Your task to perform on an android device: clear all cookies in the chrome app Image 0: 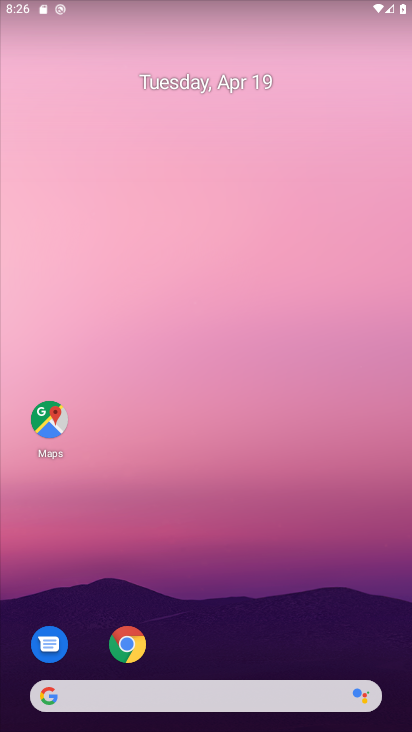
Step 0: click (110, 649)
Your task to perform on an android device: clear all cookies in the chrome app Image 1: 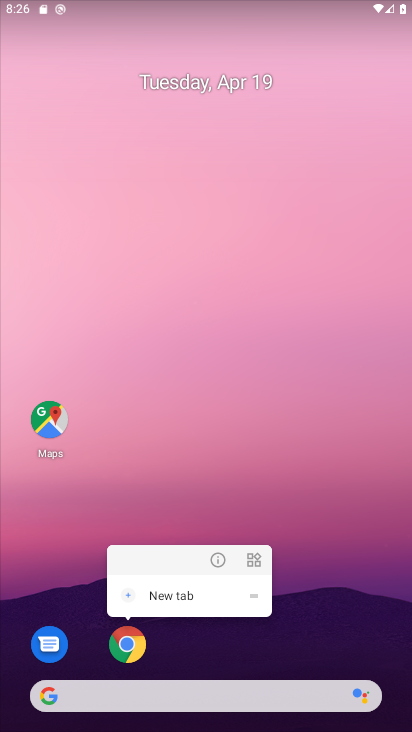
Step 1: drag from (261, 586) to (299, 98)
Your task to perform on an android device: clear all cookies in the chrome app Image 2: 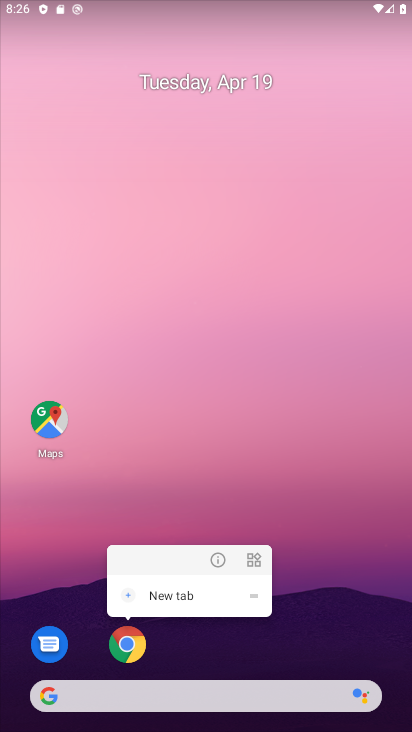
Step 2: drag from (294, 583) to (369, 102)
Your task to perform on an android device: clear all cookies in the chrome app Image 3: 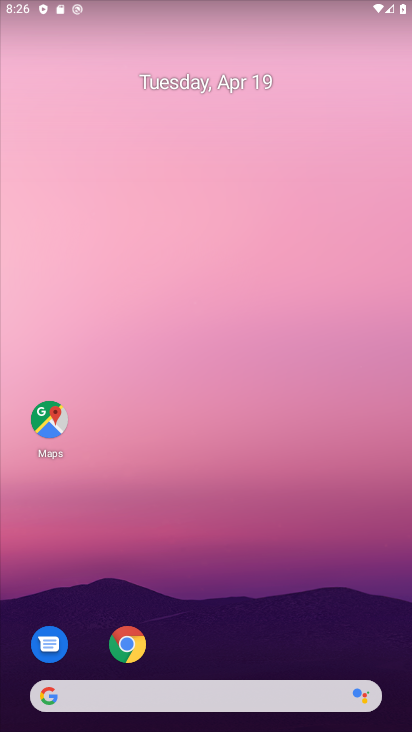
Step 3: drag from (205, 628) to (334, 68)
Your task to perform on an android device: clear all cookies in the chrome app Image 4: 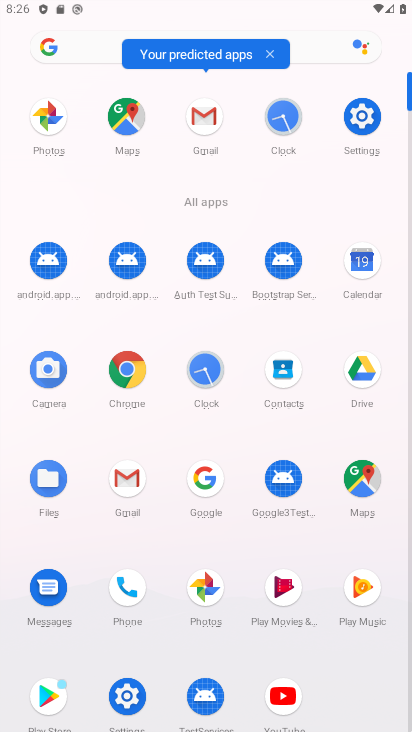
Step 4: click (135, 382)
Your task to perform on an android device: clear all cookies in the chrome app Image 5: 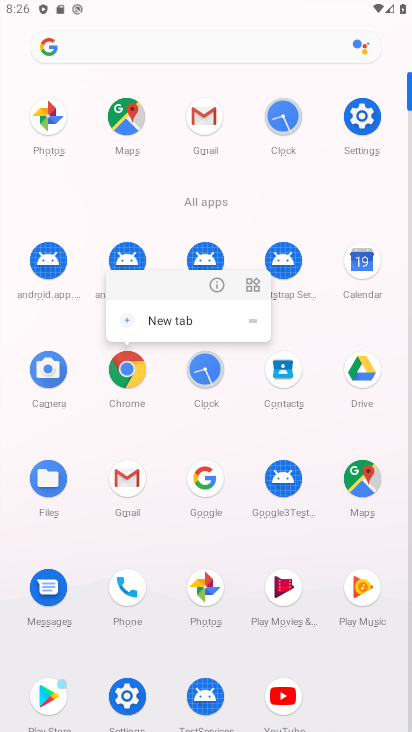
Step 5: click (135, 369)
Your task to perform on an android device: clear all cookies in the chrome app Image 6: 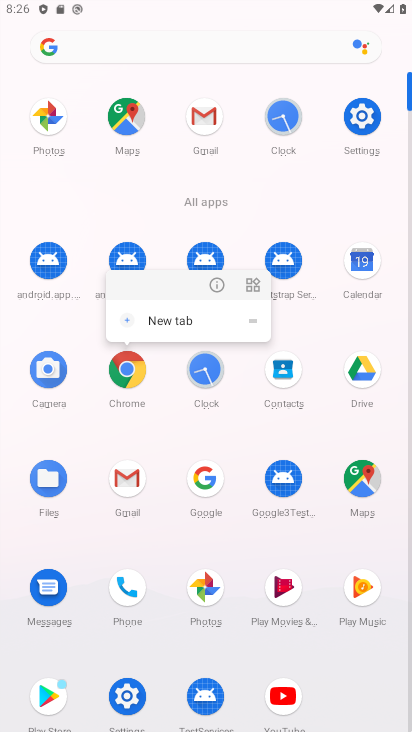
Step 6: click (135, 378)
Your task to perform on an android device: clear all cookies in the chrome app Image 7: 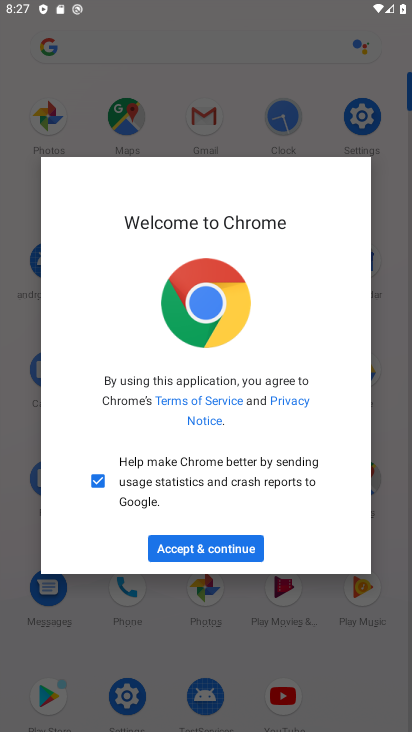
Step 7: click (237, 550)
Your task to perform on an android device: clear all cookies in the chrome app Image 8: 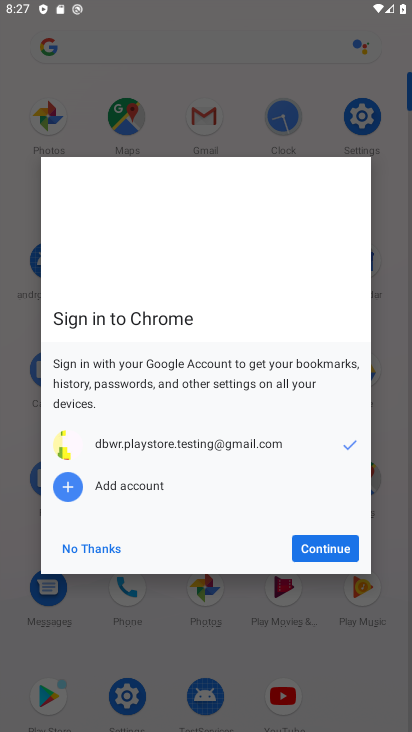
Step 8: click (328, 548)
Your task to perform on an android device: clear all cookies in the chrome app Image 9: 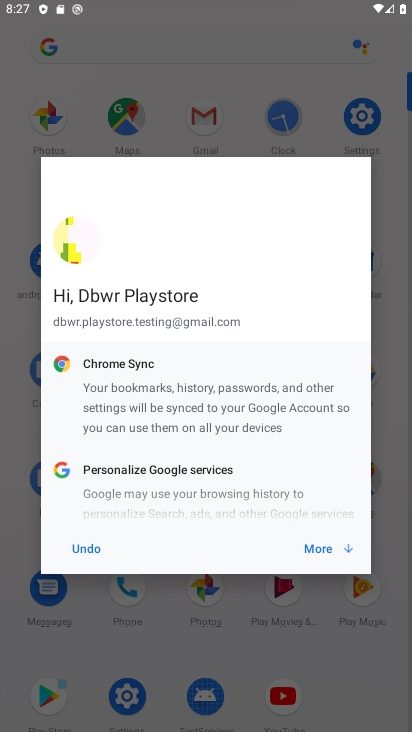
Step 9: click (323, 556)
Your task to perform on an android device: clear all cookies in the chrome app Image 10: 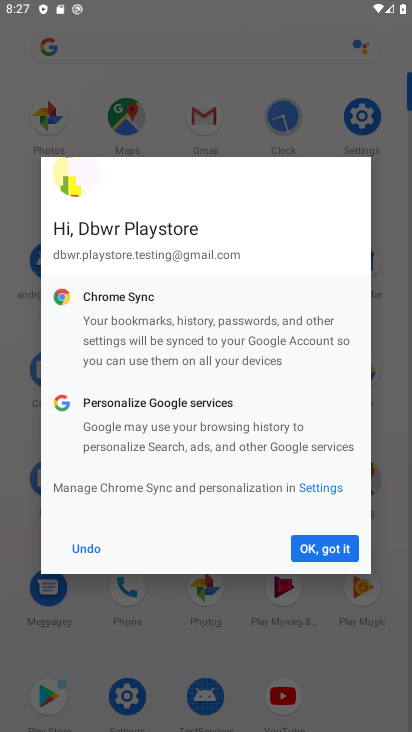
Step 10: click (322, 553)
Your task to perform on an android device: clear all cookies in the chrome app Image 11: 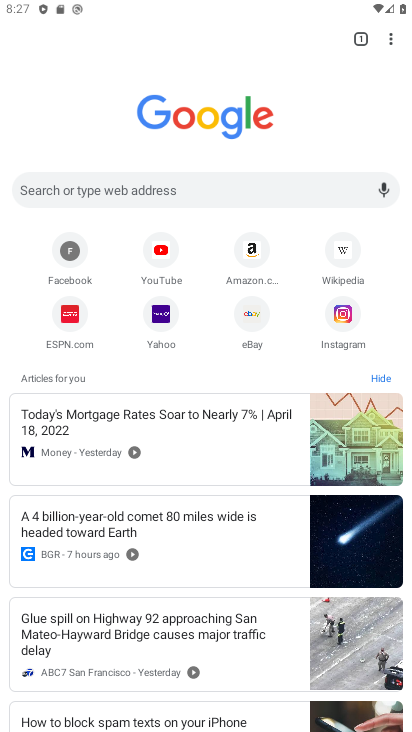
Step 11: click (401, 39)
Your task to perform on an android device: clear all cookies in the chrome app Image 12: 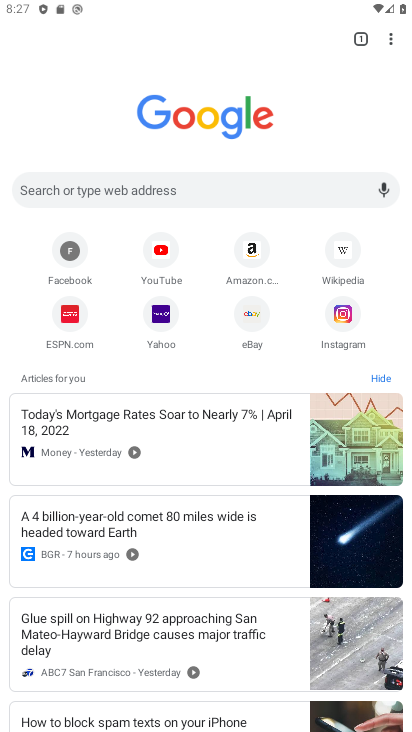
Step 12: drag from (396, 40) to (291, 335)
Your task to perform on an android device: clear all cookies in the chrome app Image 13: 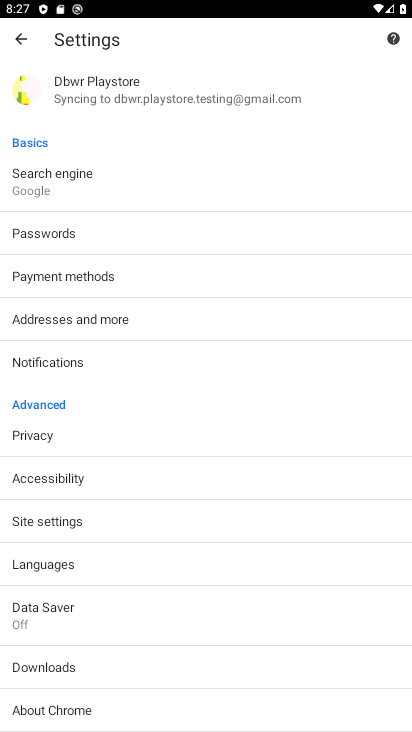
Step 13: click (87, 433)
Your task to perform on an android device: clear all cookies in the chrome app Image 14: 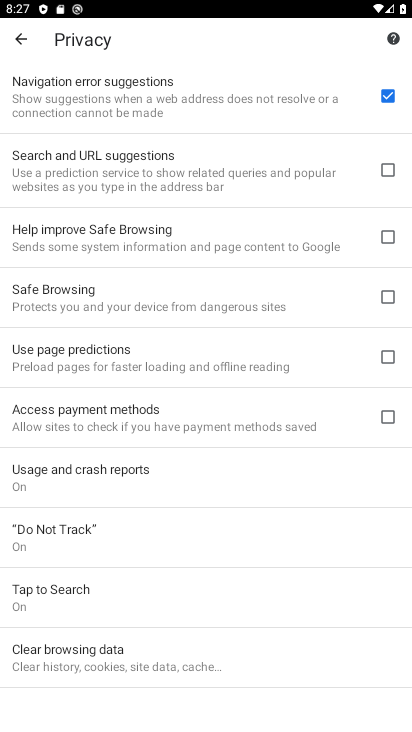
Step 14: drag from (141, 507) to (249, 113)
Your task to perform on an android device: clear all cookies in the chrome app Image 15: 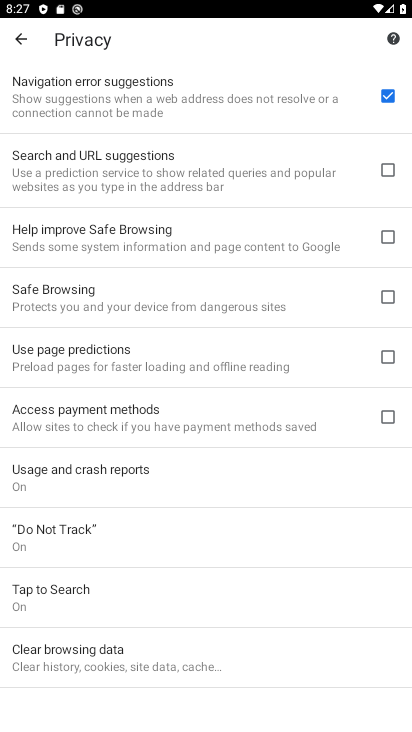
Step 15: click (198, 661)
Your task to perform on an android device: clear all cookies in the chrome app Image 16: 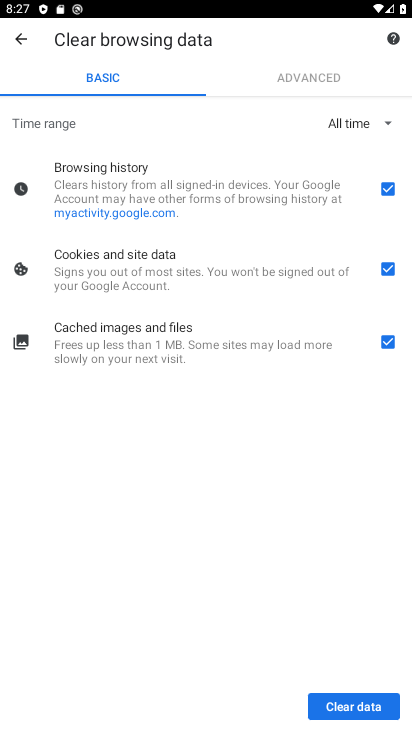
Step 16: click (386, 186)
Your task to perform on an android device: clear all cookies in the chrome app Image 17: 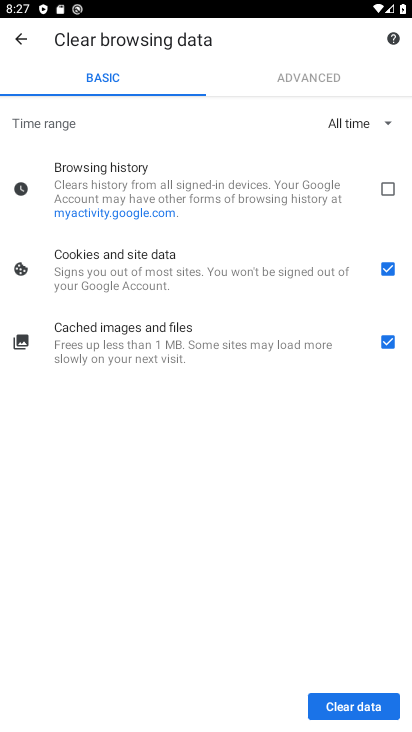
Step 17: click (392, 342)
Your task to perform on an android device: clear all cookies in the chrome app Image 18: 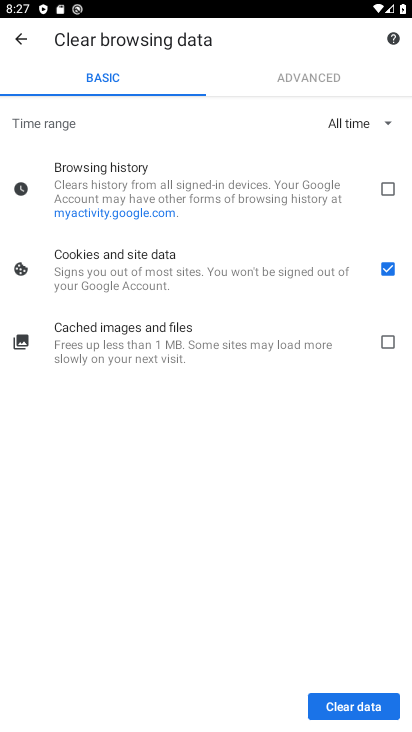
Step 18: click (336, 707)
Your task to perform on an android device: clear all cookies in the chrome app Image 19: 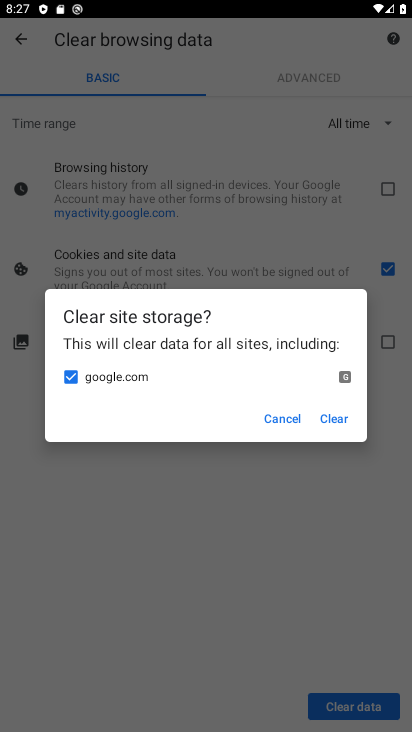
Step 19: click (324, 416)
Your task to perform on an android device: clear all cookies in the chrome app Image 20: 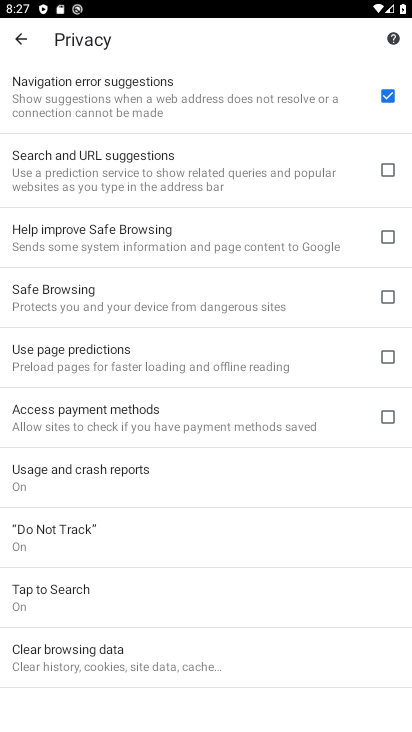
Step 20: task complete